Your task to perform on an android device: allow cookies in the chrome app Image 0: 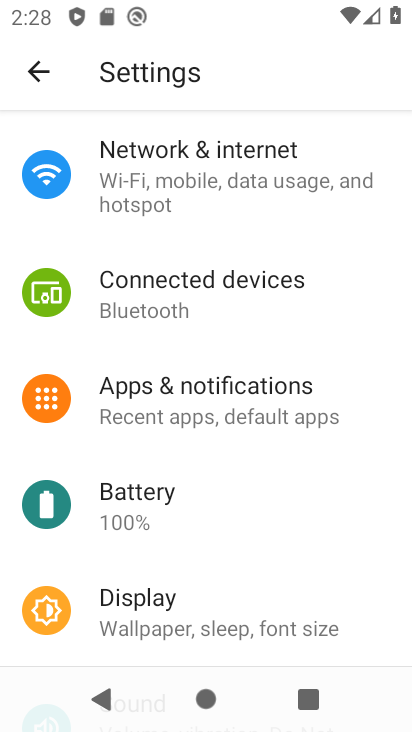
Step 0: press home button
Your task to perform on an android device: allow cookies in the chrome app Image 1: 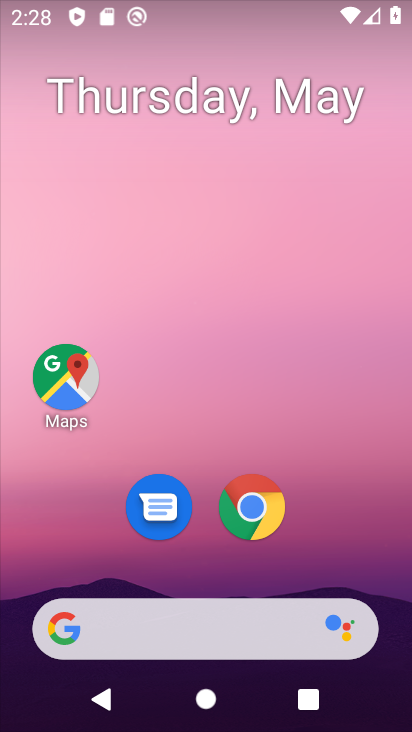
Step 1: click (253, 510)
Your task to perform on an android device: allow cookies in the chrome app Image 2: 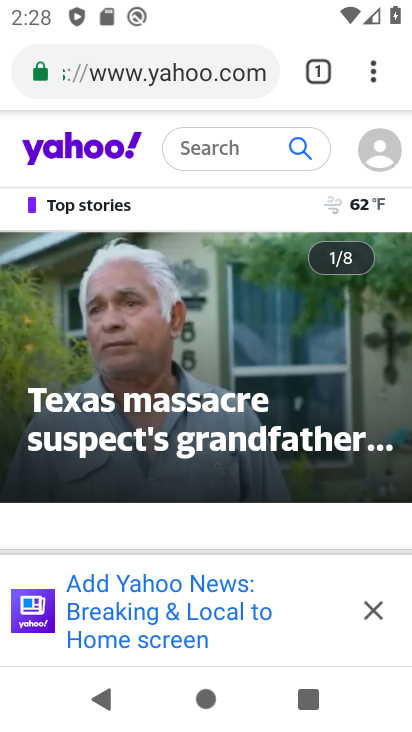
Step 2: click (367, 606)
Your task to perform on an android device: allow cookies in the chrome app Image 3: 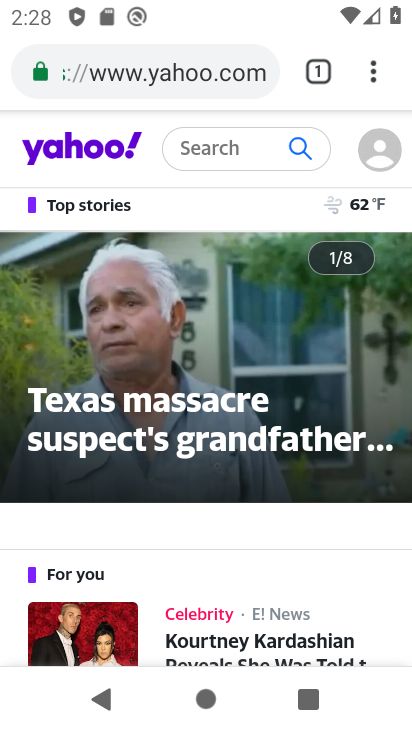
Step 3: click (372, 68)
Your task to perform on an android device: allow cookies in the chrome app Image 4: 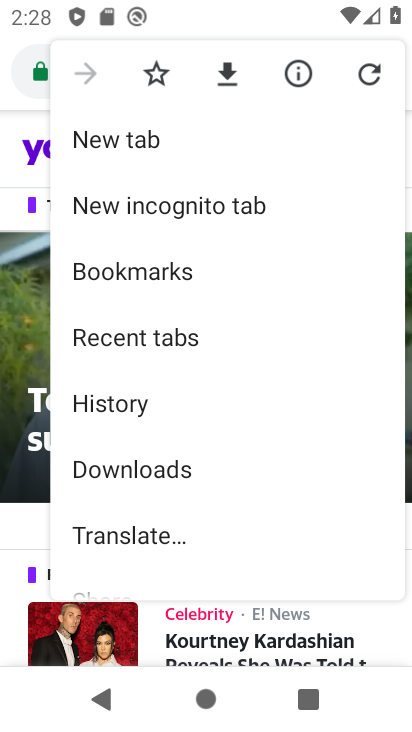
Step 4: drag from (128, 472) to (154, 144)
Your task to perform on an android device: allow cookies in the chrome app Image 5: 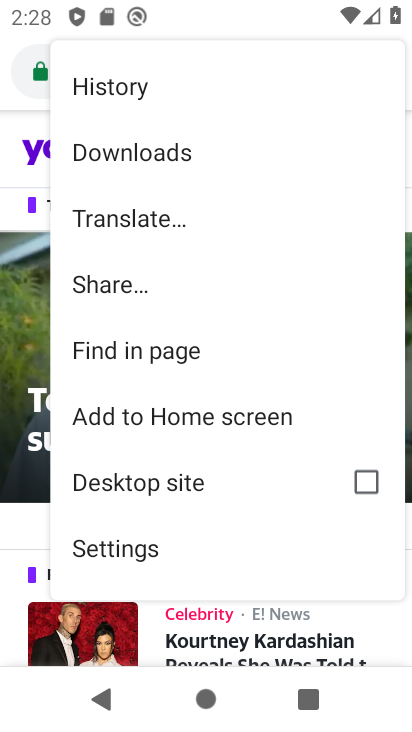
Step 5: click (115, 539)
Your task to perform on an android device: allow cookies in the chrome app Image 6: 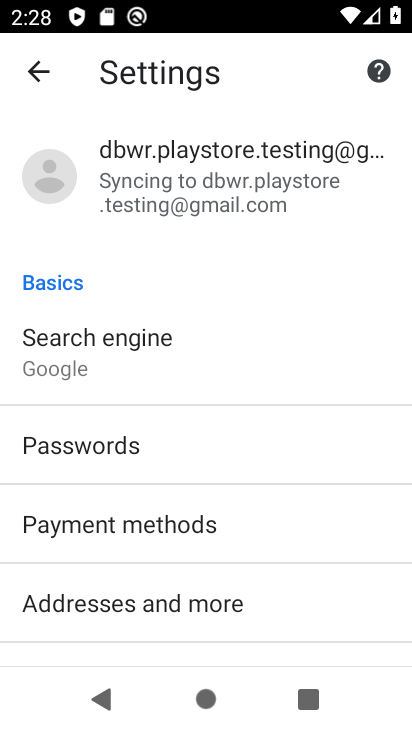
Step 6: drag from (181, 559) to (185, 281)
Your task to perform on an android device: allow cookies in the chrome app Image 7: 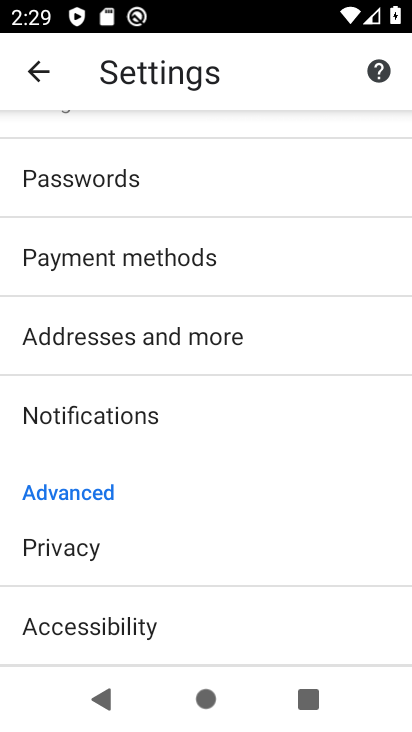
Step 7: drag from (131, 553) to (142, 405)
Your task to perform on an android device: allow cookies in the chrome app Image 8: 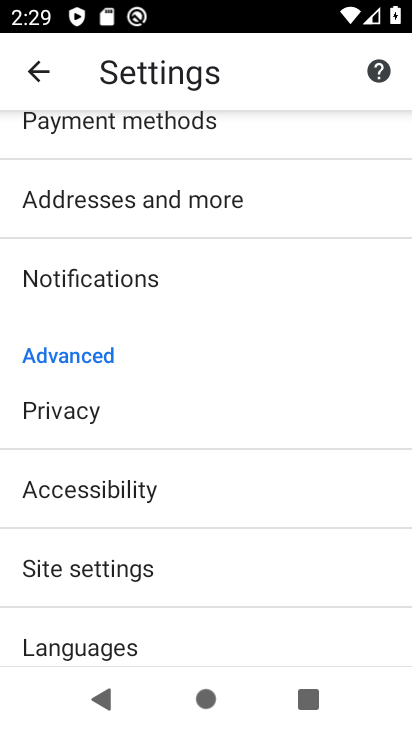
Step 8: click (103, 549)
Your task to perform on an android device: allow cookies in the chrome app Image 9: 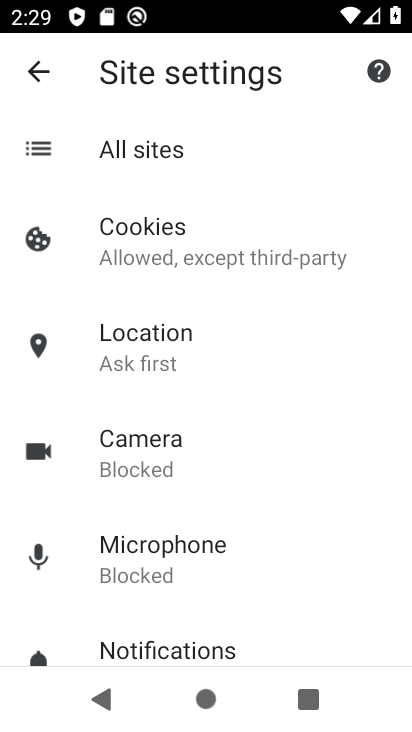
Step 9: task complete